Your task to perform on an android device: uninstall "Instagram" Image 0: 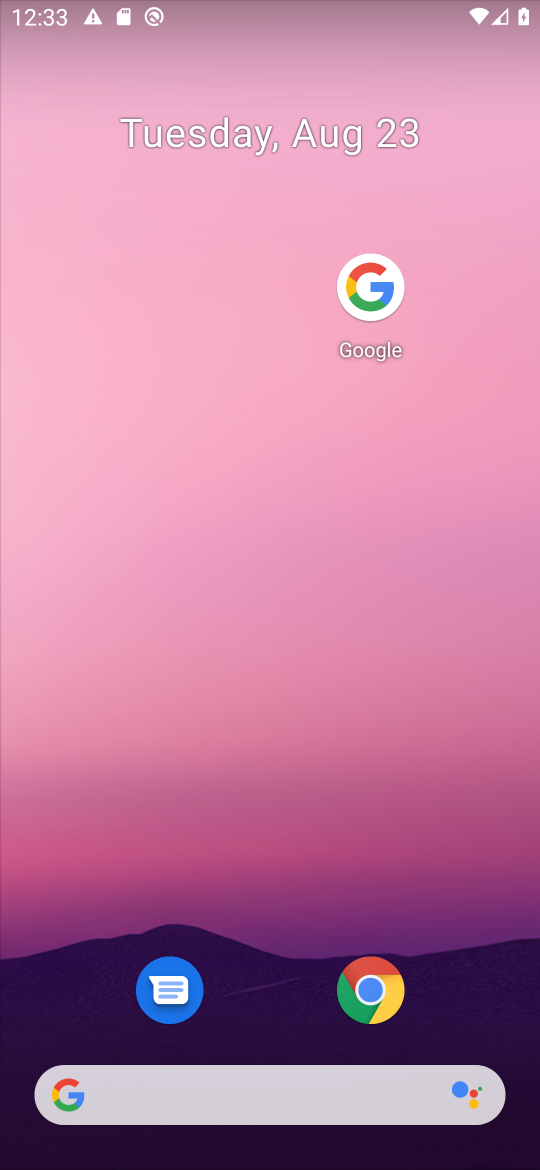
Step 0: drag from (267, 912) to (284, 348)
Your task to perform on an android device: uninstall "Instagram" Image 1: 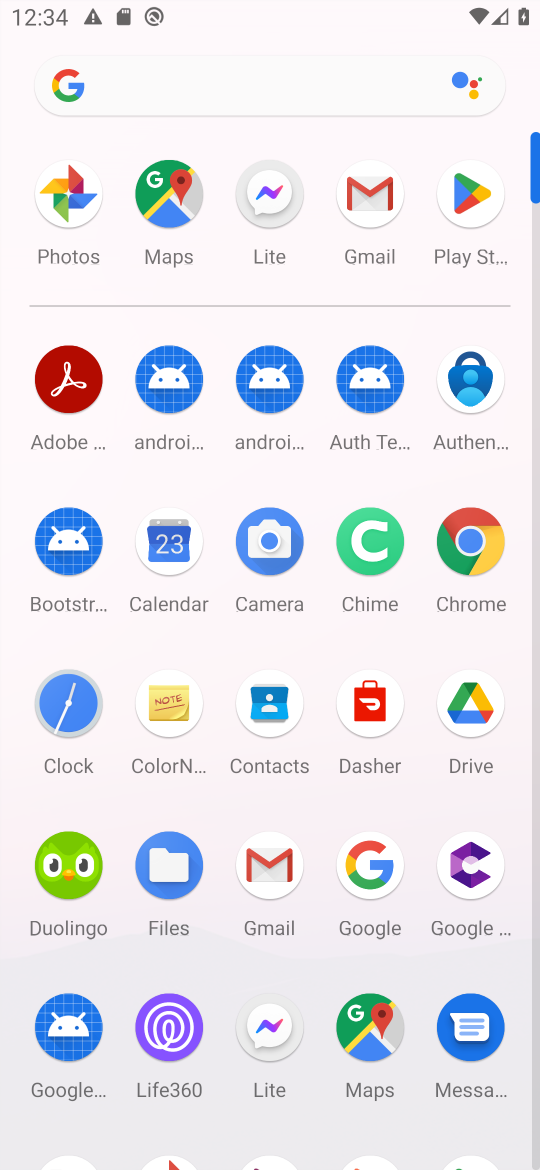
Step 1: click (485, 179)
Your task to perform on an android device: uninstall "Instagram" Image 2: 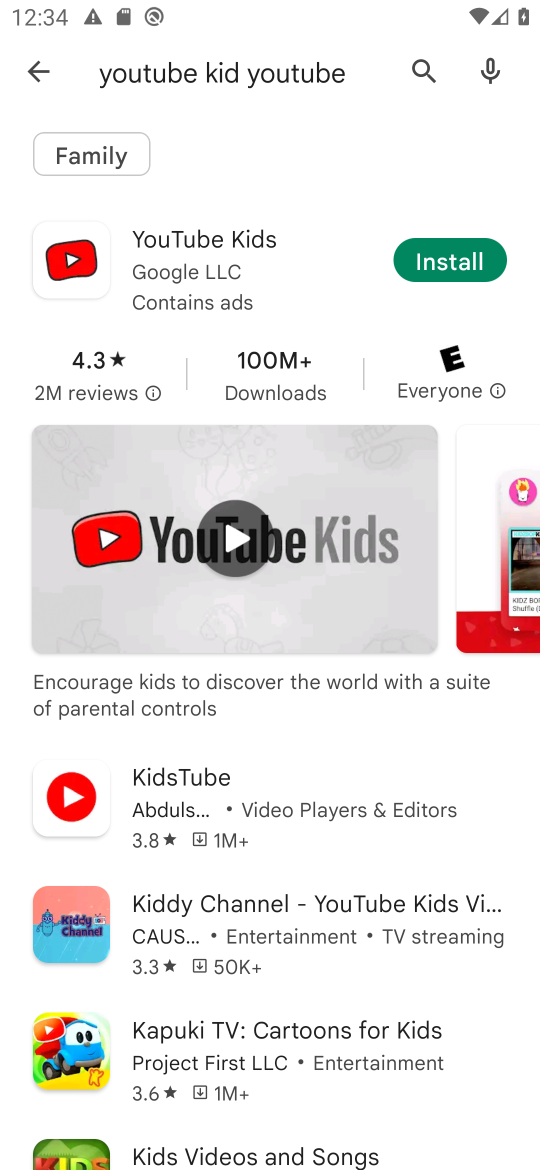
Step 2: click (42, 83)
Your task to perform on an android device: uninstall "Instagram" Image 3: 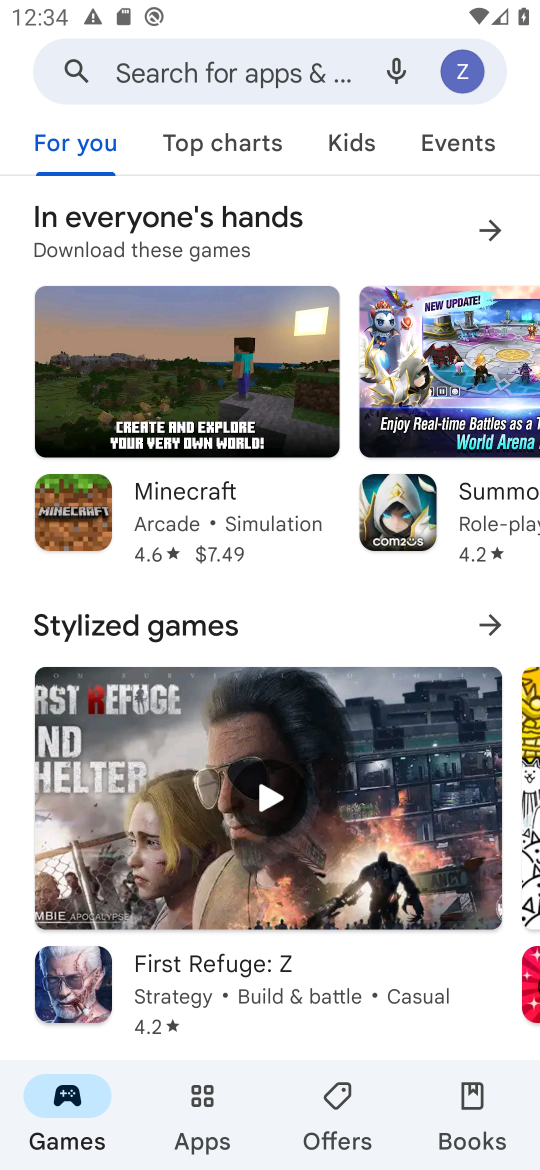
Step 3: click (158, 69)
Your task to perform on an android device: uninstall "Instagram" Image 4: 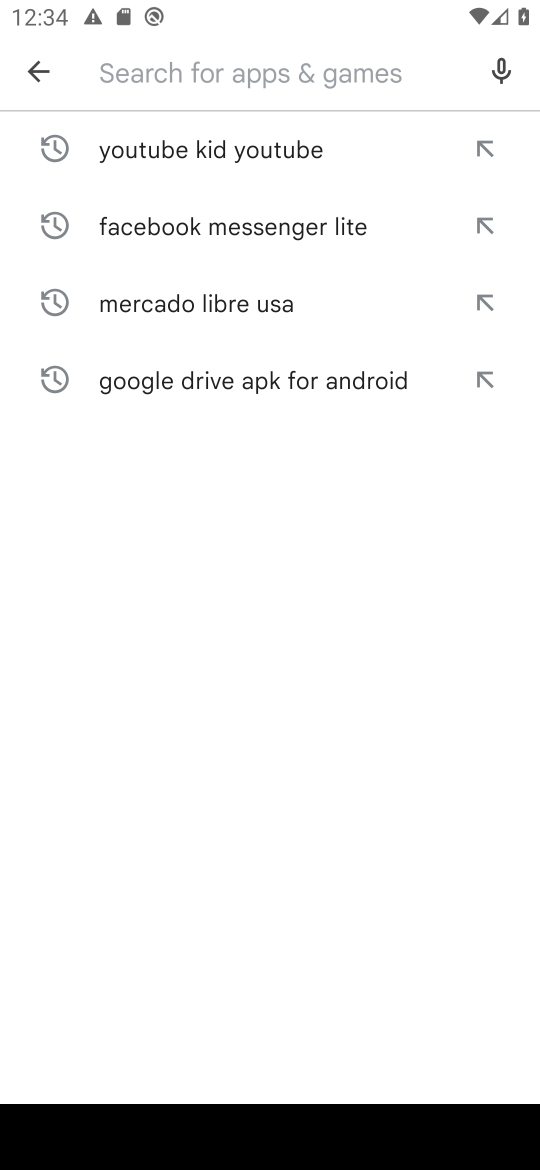
Step 4: type "instagram "
Your task to perform on an android device: uninstall "Instagram" Image 5: 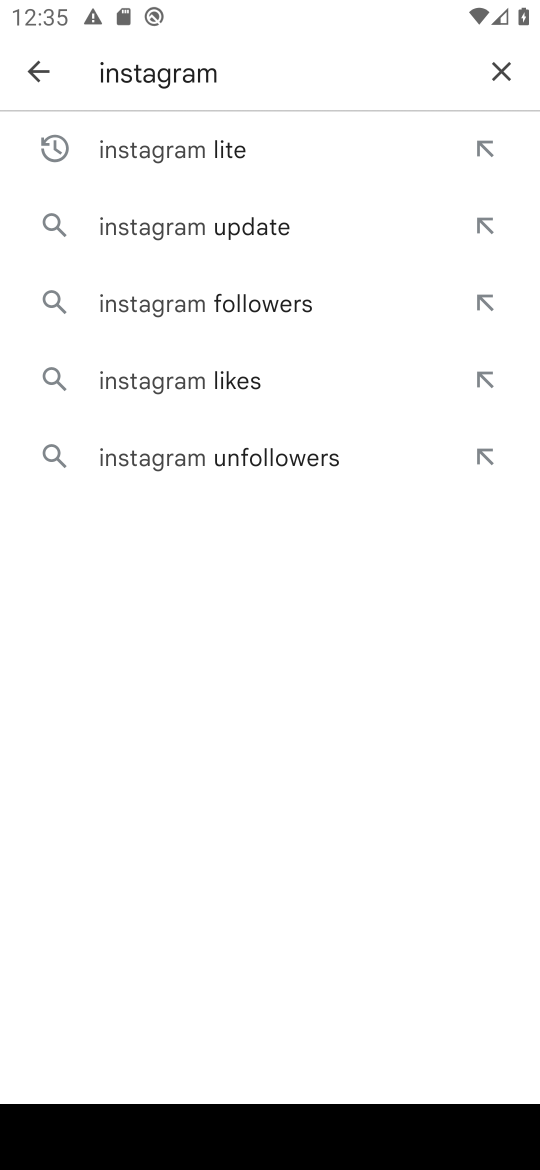
Step 5: click (221, 135)
Your task to perform on an android device: uninstall "Instagram" Image 6: 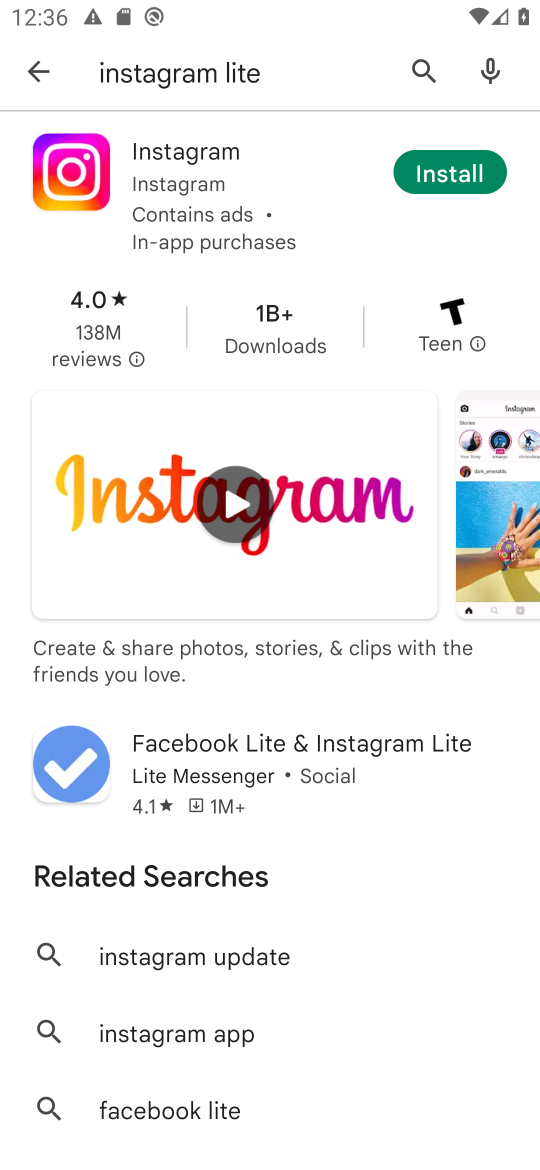
Step 6: click (418, 156)
Your task to perform on an android device: uninstall "Instagram" Image 7: 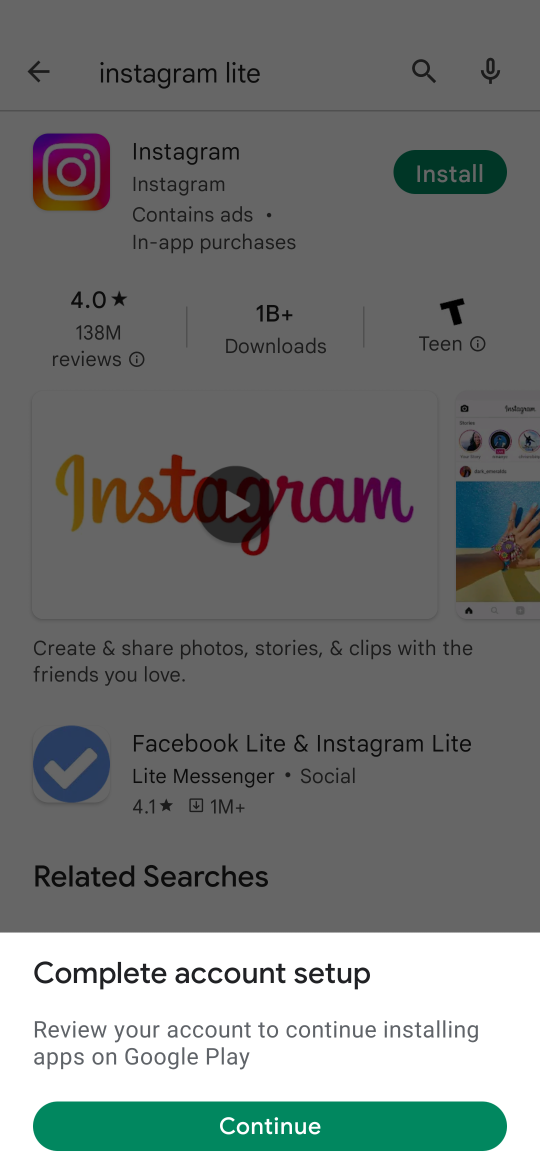
Step 7: click (292, 176)
Your task to perform on an android device: uninstall "Instagram" Image 8: 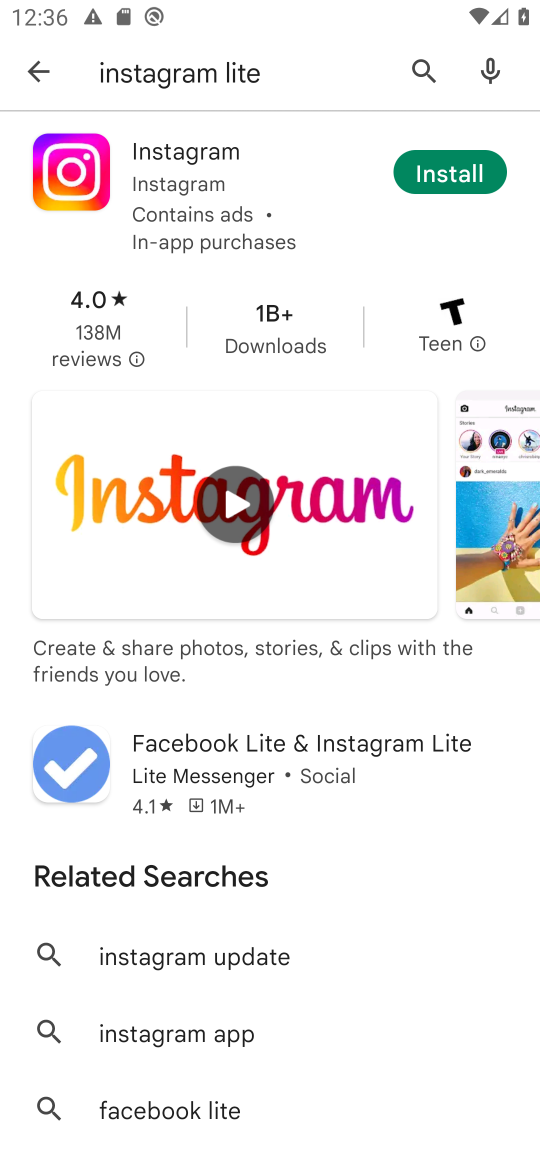
Step 8: task complete